Your task to perform on an android device: open the mobile data screen to see how much data has been used Image 0: 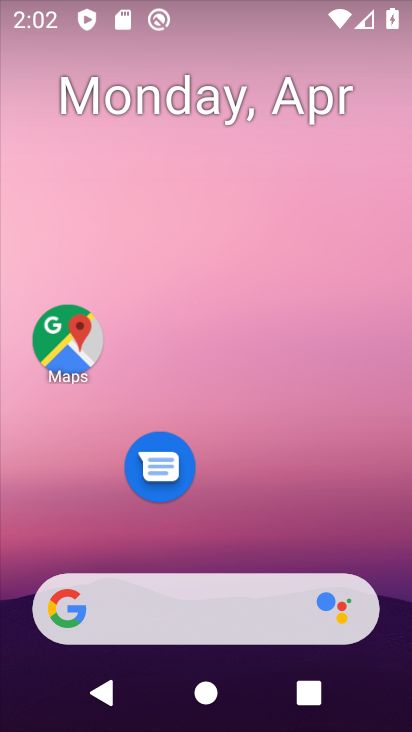
Step 0: drag from (296, 522) to (254, 118)
Your task to perform on an android device: open the mobile data screen to see how much data has been used Image 1: 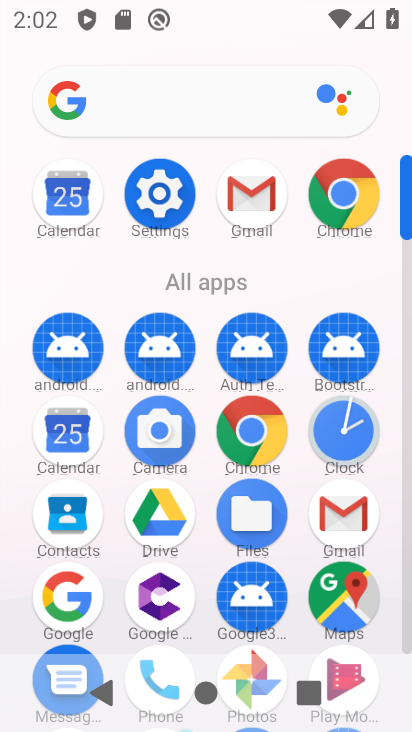
Step 1: click (150, 201)
Your task to perform on an android device: open the mobile data screen to see how much data has been used Image 2: 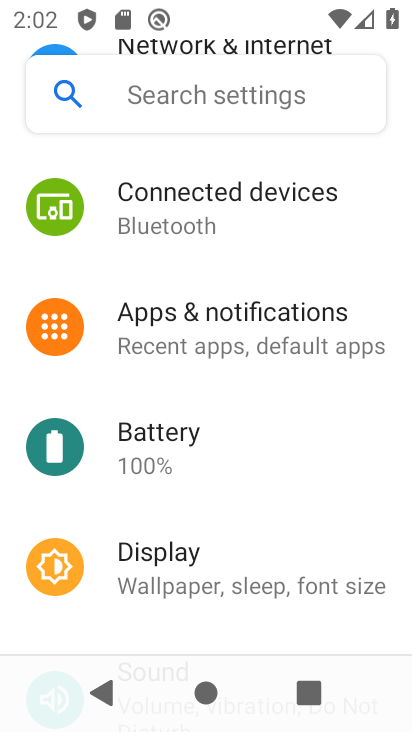
Step 2: drag from (221, 311) to (241, 549)
Your task to perform on an android device: open the mobile data screen to see how much data has been used Image 3: 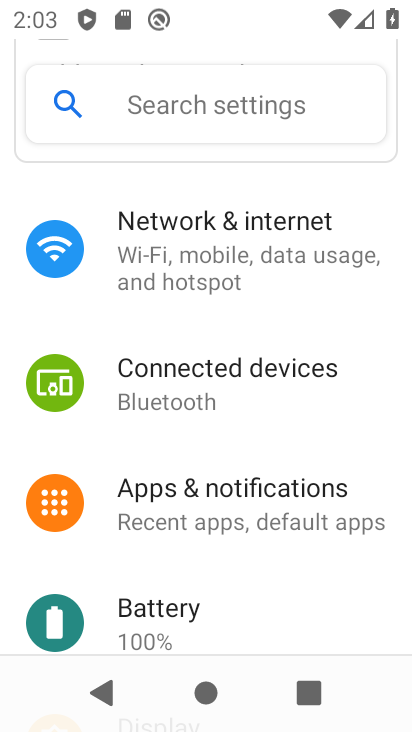
Step 3: click (217, 253)
Your task to perform on an android device: open the mobile data screen to see how much data has been used Image 4: 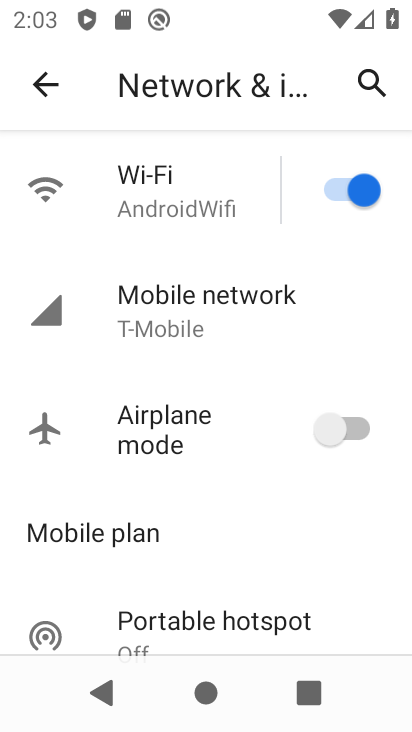
Step 4: click (158, 311)
Your task to perform on an android device: open the mobile data screen to see how much data has been used Image 5: 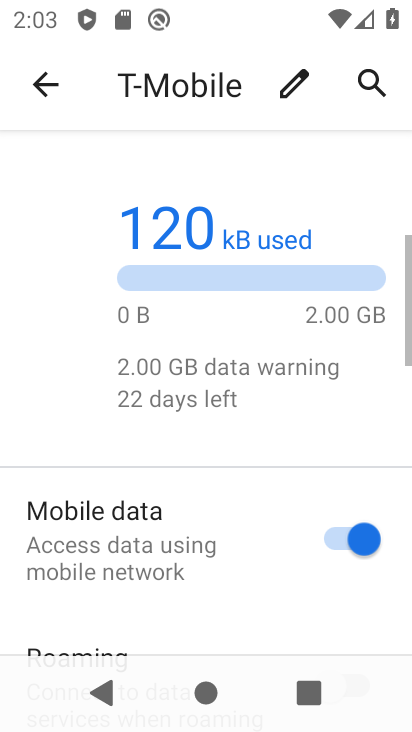
Step 5: drag from (192, 554) to (214, 263)
Your task to perform on an android device: open the mobile data screen to see how much data has been used Image 6: 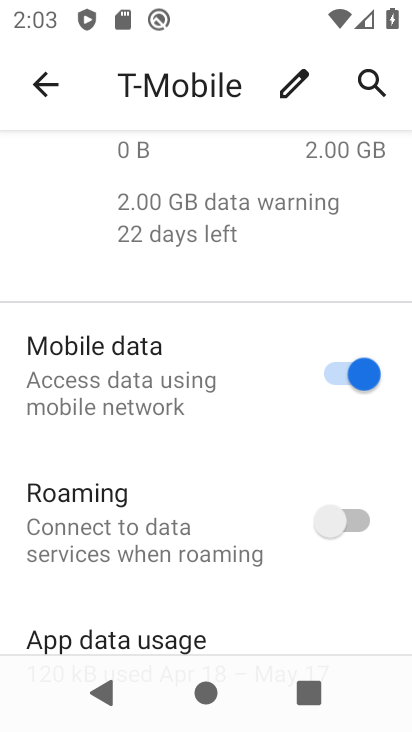
Step 6: drag from (232, 597) to (243, 306)
Your task to perform on an android device: open the mobile data screen to see how much data has been used Image 7: 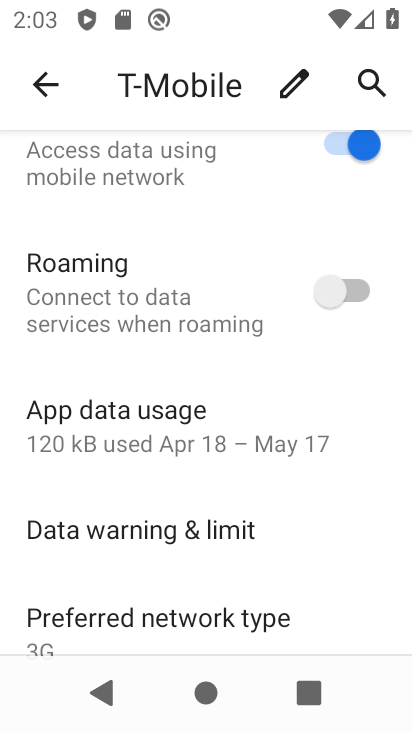
Step 7: click (163, 457)
Your task to perform on an android device: open the mobile data screen to see how much data has been used Image 8: 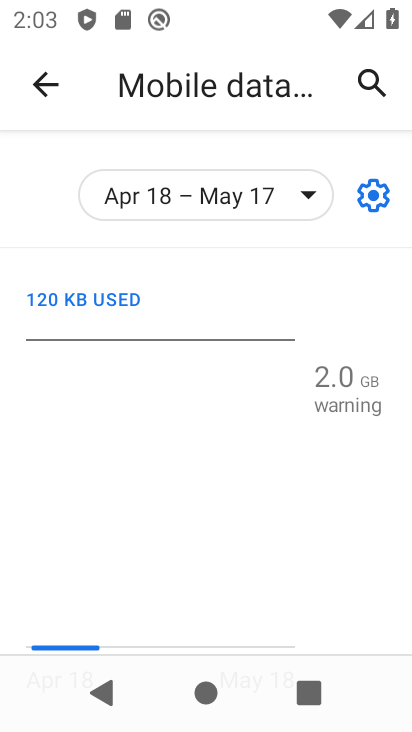
Step 8: task complete